Your task to perform on an android device: Search for Italian restaurants on Maps Image 0: 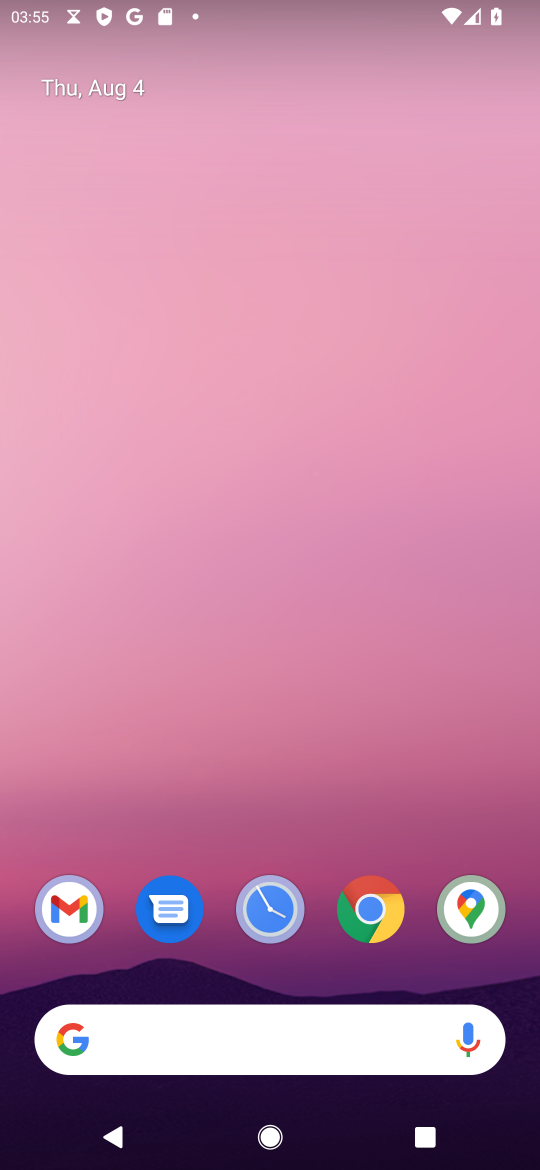
Step 0: drag from (169, 1022) to (373, 138)
Your task to perform on an android device: Search for Italian restaurants on Maps Image 1: 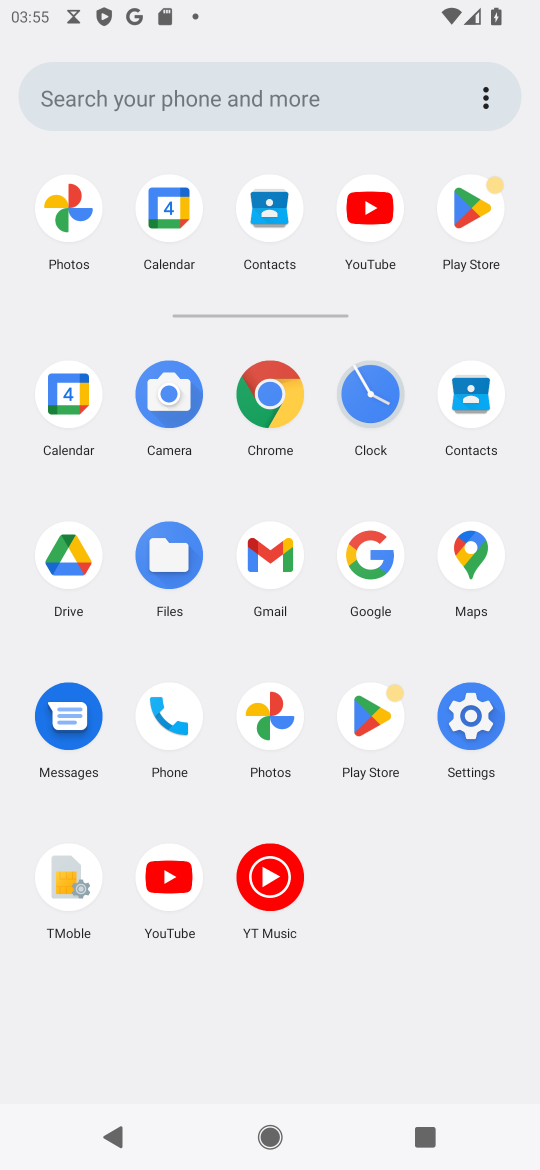
Step 1: click (472, 560)
Your task to perform on an android device: Search for Italian restaurants on Maps Image 2: 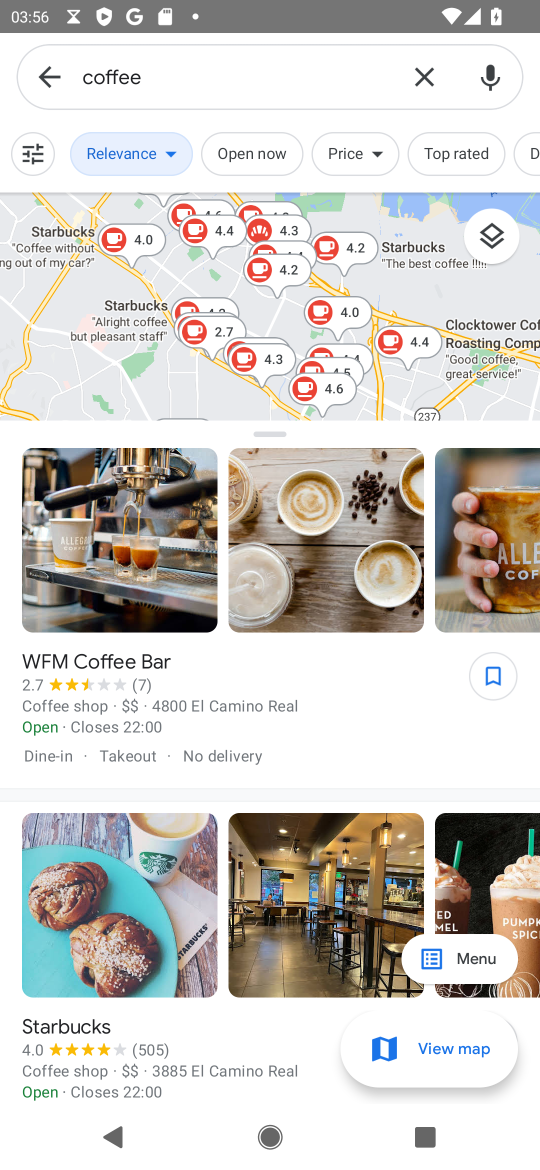
Step 2: click (424, 69)
Your task to perform on an android device: Search for Italian restaurants on Maps Image 3: 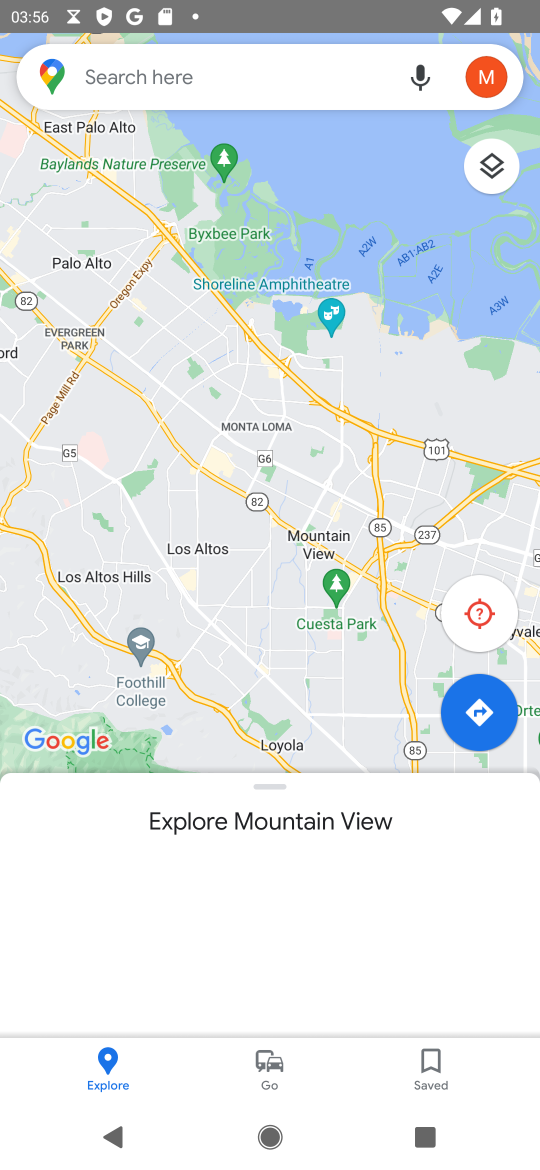
Step 3: click (275, 85)
Your task to perform on an android device: Search for Italian restaurants on Maps Image 4: 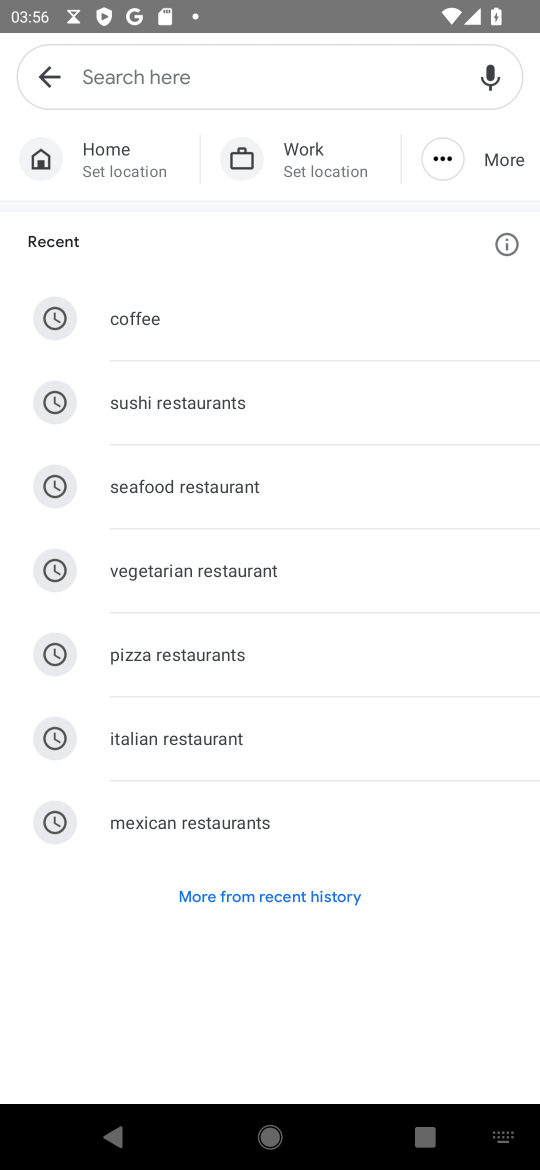
Step 4: click (168, 735)
Your task to perform on an android device: Search for Italian restaurants on Maps Image 5: 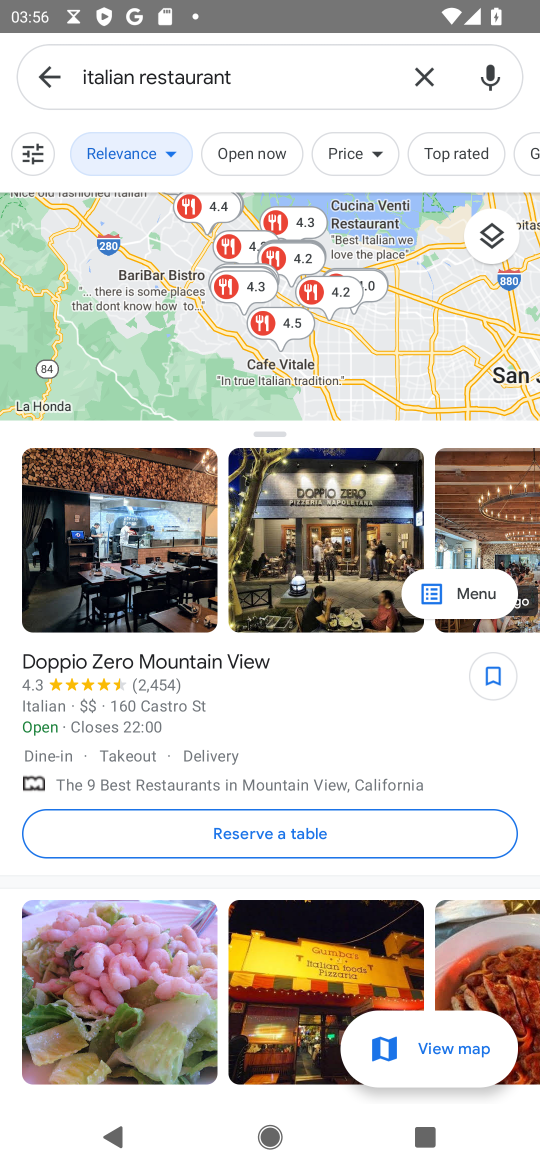
Step 5: task complete